Your task to perform on an android device: Open calendar and show me the second week of next month Image 0: 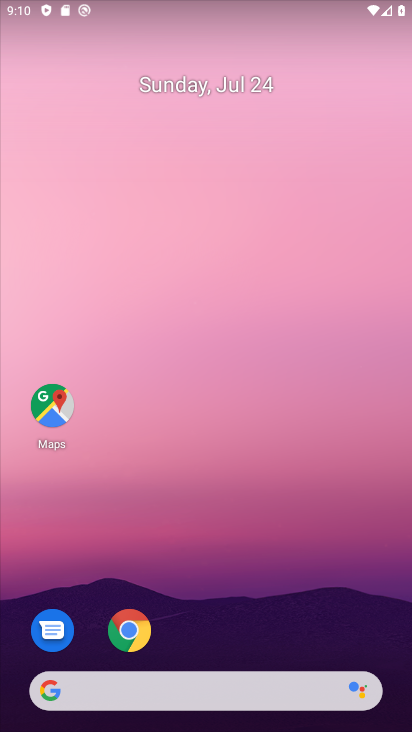
Step 0: drag from (325, 632) to (311, 162)
Your task to perform on an android device: Open calendar and show me the second week of next month Image 1: 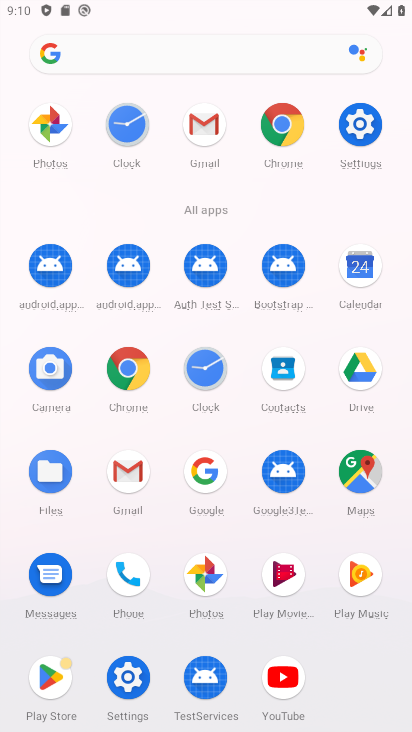
Step 1: click (358, 261)
Your task to perform on an android device: Open calendar and show me the second week of next month Image 2: 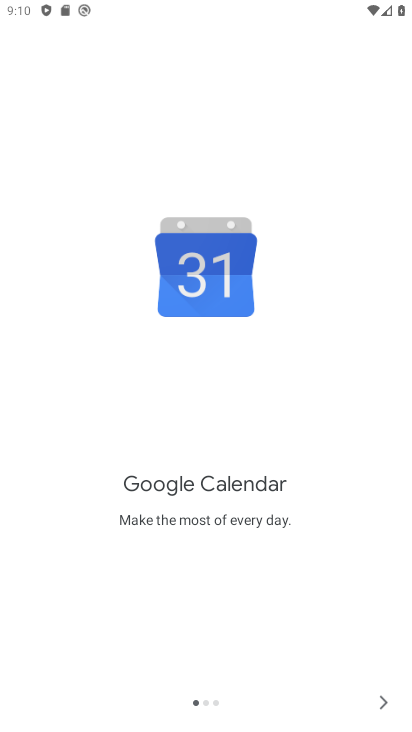
Step 2: click (391, 704)
Your task to perform on an android device: Open calendar and show me the second week of next month Image 3: 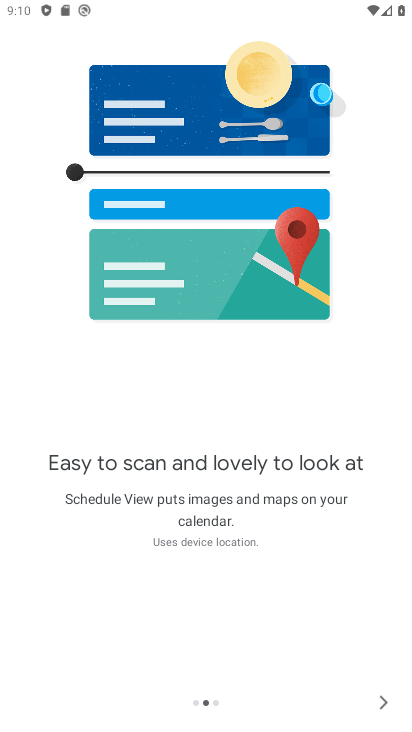
Step 3: click (391, 704)
Your task to perform on an android device: Open calendar and show me the second week of next month Image 4: 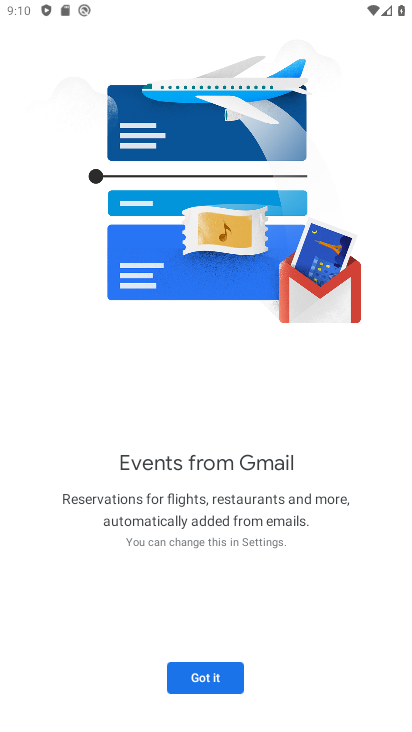
Step 4: click (188, 665)
Your task to perform on an android device: Open calendar and show me the second week of next month Image 5: 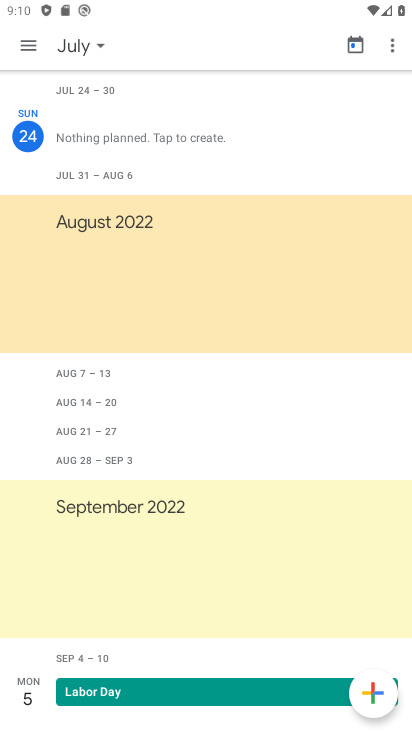
Step 5: click (36, 37)
Your task to perform on an android device: Open calendar and show me the second week of next month Image 6: 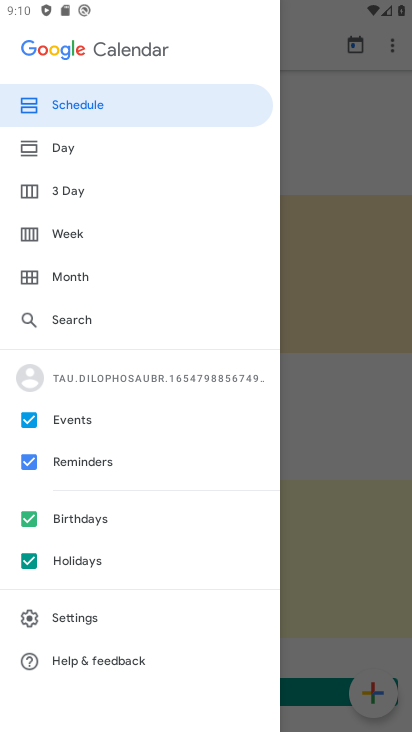
Step 6: click (93, 282)
Your task to perform on an android device: Open calendar and show me the second week of next month Image 7: 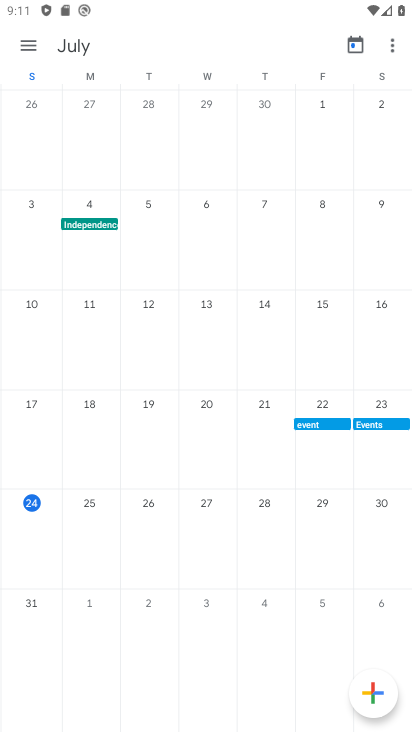
Step 7: drag from (239, 287) to (20, 248)
Your task to perform on an android device: Open calendar and show me the second week of next month Image 8: 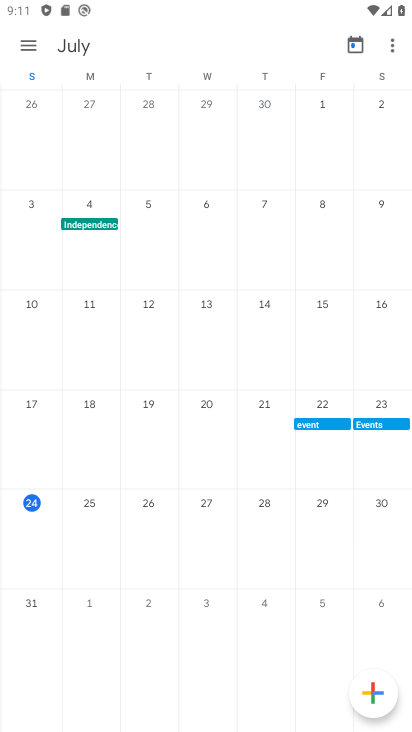
Step 8: drag from (199, 300) to (7, 288)
Your task to perform on an android device: Open calendar and show me the second week of next month Image 9: 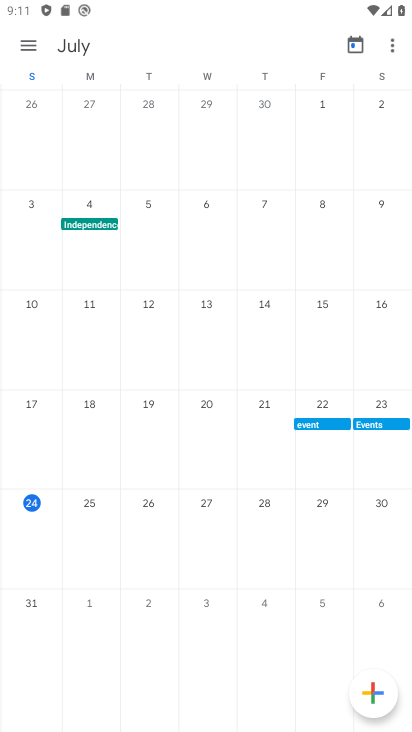
Step 9: drag from (342, 188) to (6, 68)
Your task to perform on an android device: Open calendar and show me the second week of next month Image 10: 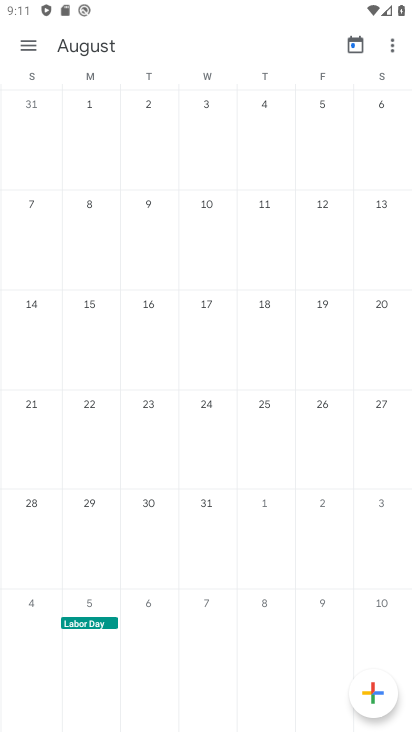
Step 10: click (22, 35)
Your task to perform on an android device: Open calendar and show me the second week of next month Image 11: 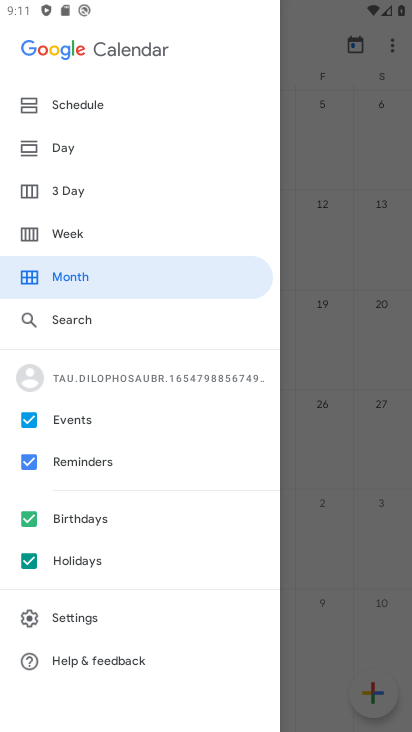
Step 11: click (94, 233)
Your task to perform on an android device: Open calendar and show me the second week of next month Image 12: 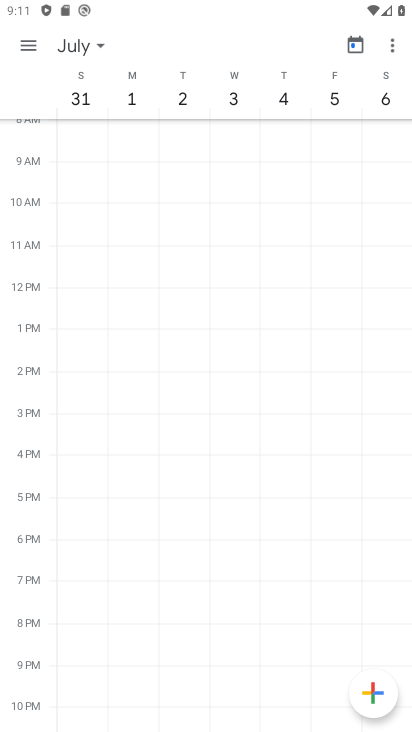
Step 12: task complete